Your task to perform on an android device: Show me popular videos on Youtube Image 0: 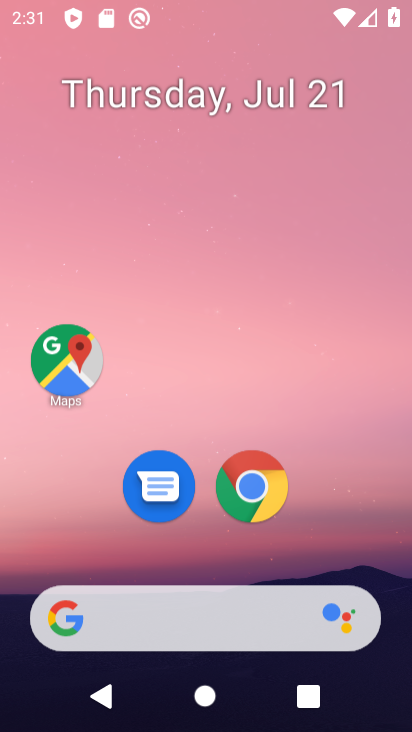
Step 0: click (251, 15)
Your task to perform on an android device: Show me popular videos on Youtube Image 1: 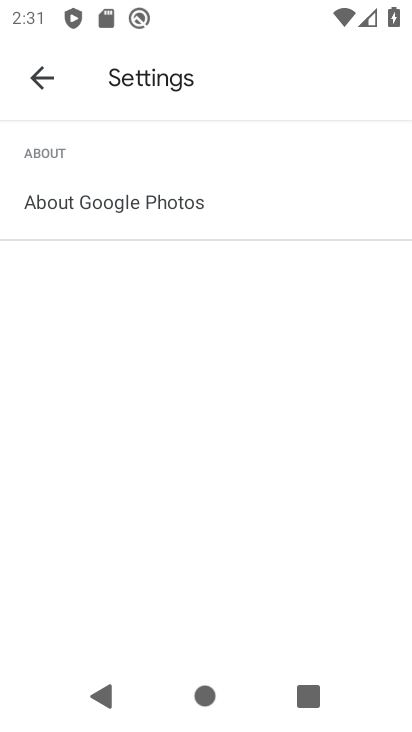
Step 1: press back button
Your task to perform on an android device: Show me popular videos on Youtube Image 2: 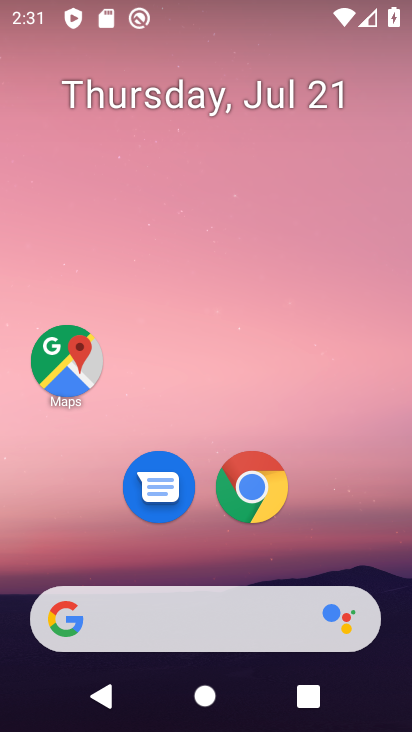
Step 2: press back button
Your task to perform on an android device: Show me popular videos on Youtube Image 3: 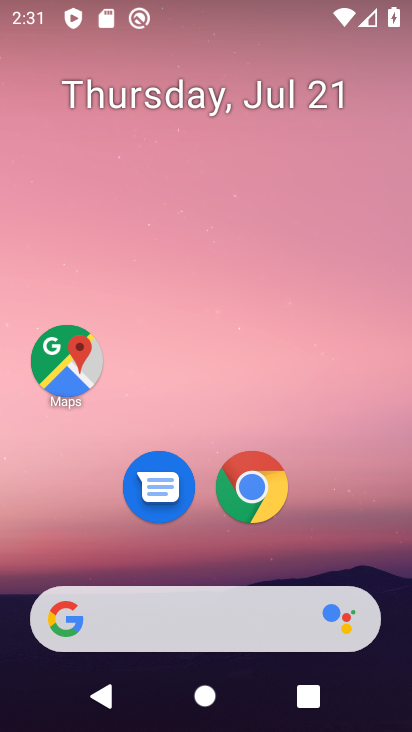
Step 3: press back button
Your task to perform on an android device: Show me popular videos on Youtube Image 4: 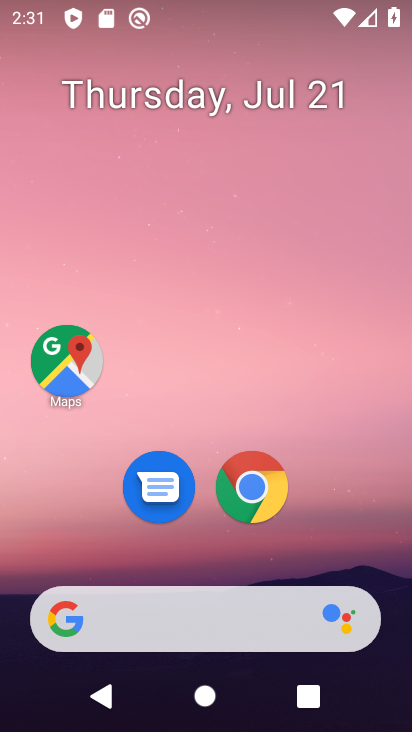
Step 4: drag from (163, 548) to (273, 19)
Your task to perform on an android device: Show me popular videos on Youtube Image 5: 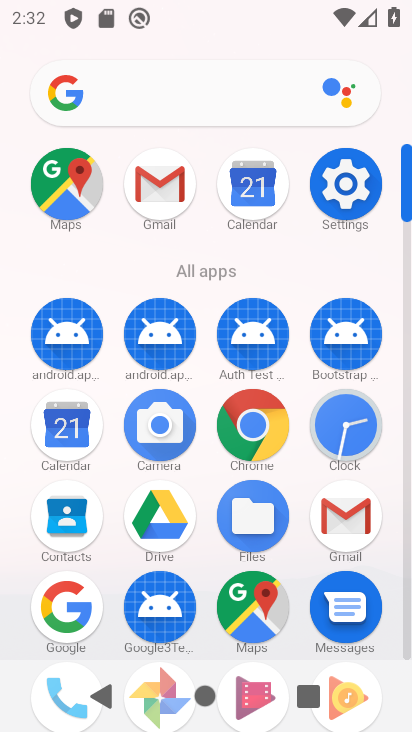
Step 5: drag from (188, 613) to (309, 55)
Your task to perform on an android device: Show me popular videos on Youtube Image 6: 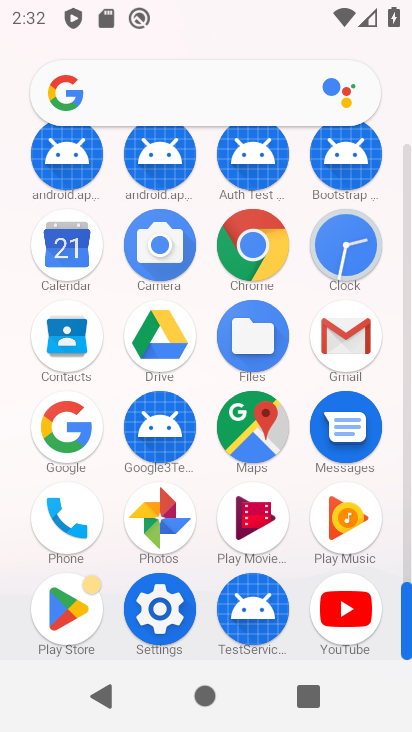
Step 6: click (347, 605)
Your task to perform on an android device: Show me popular videos on Youtube Image 7: 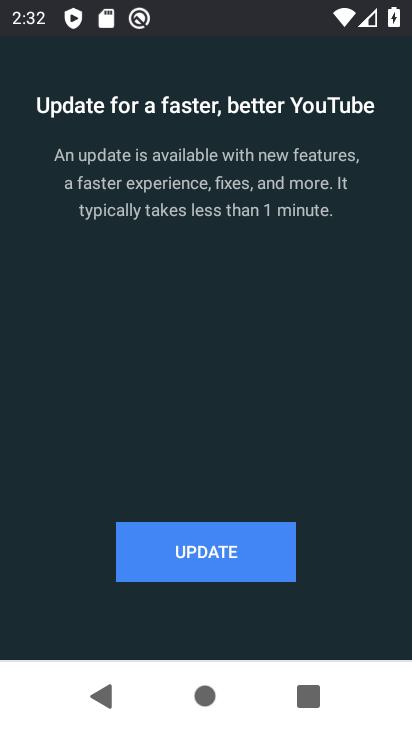
Step 7: task complete